Your task to perform on an android device: find photos in the google photos app Image 0: 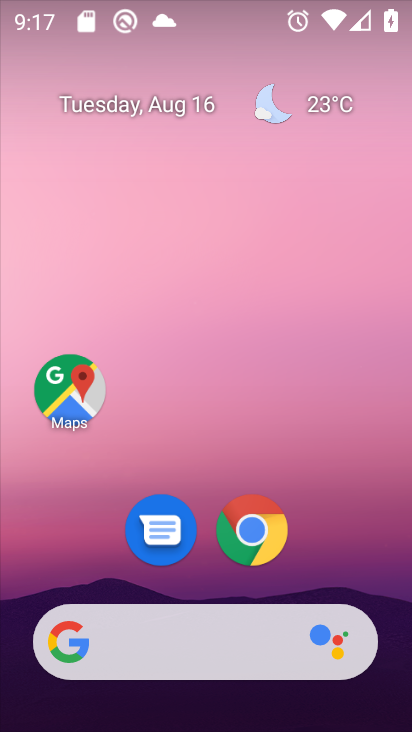
Step 0: drag from (346, 556) to (290, 99)
Your task to perform on an android device: find photos in the google photos app Image 1: 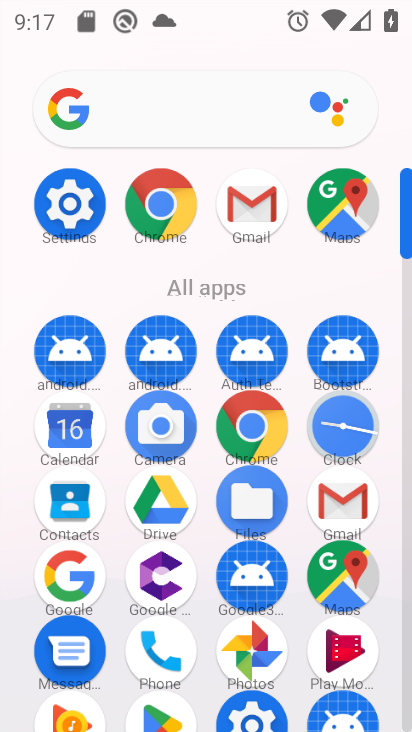
Step 1: click (247, 659)
Your task to perform on an android device: find photos in the google photos app Image 2: 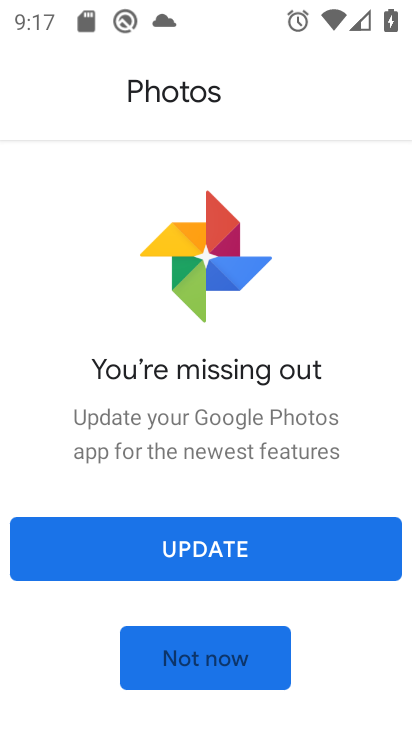
Step 2: click (262, 683)
Your task to perform on an android device: find photos in the google photos app Image 3: 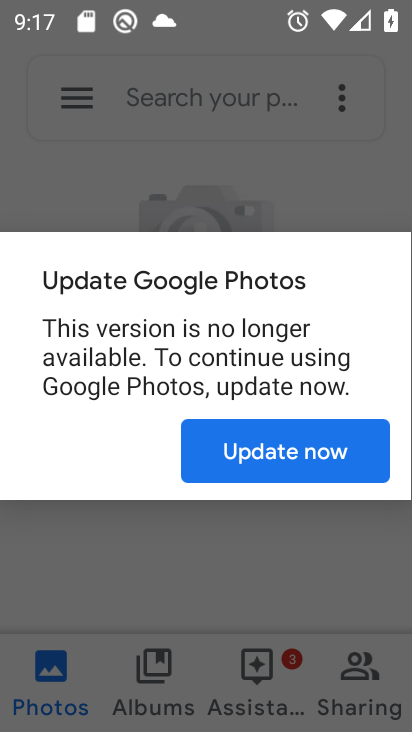
Step 3: click (287, 455)
Your task to perform on an android device: find photos in the google photos app Image 4: 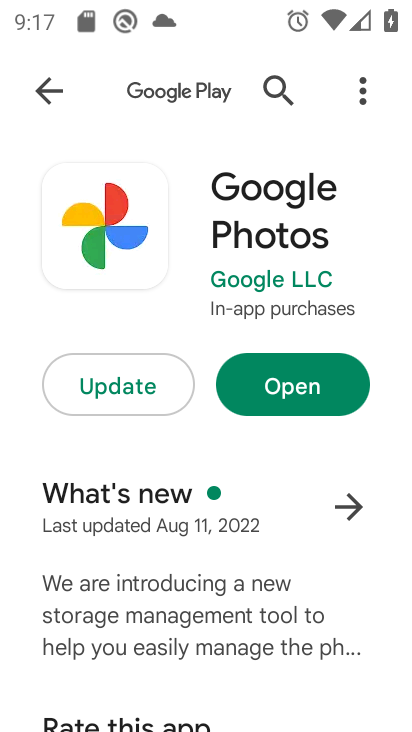
Step 4: click (90, 401)
Your task to perform on an android device: find photos in the google photos app Image 5: 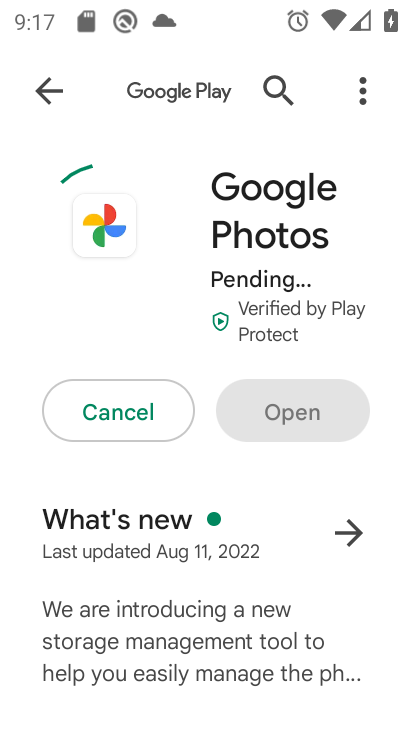
Step 5: task complete